Your task to perform on an android device: delete location history Image 0: 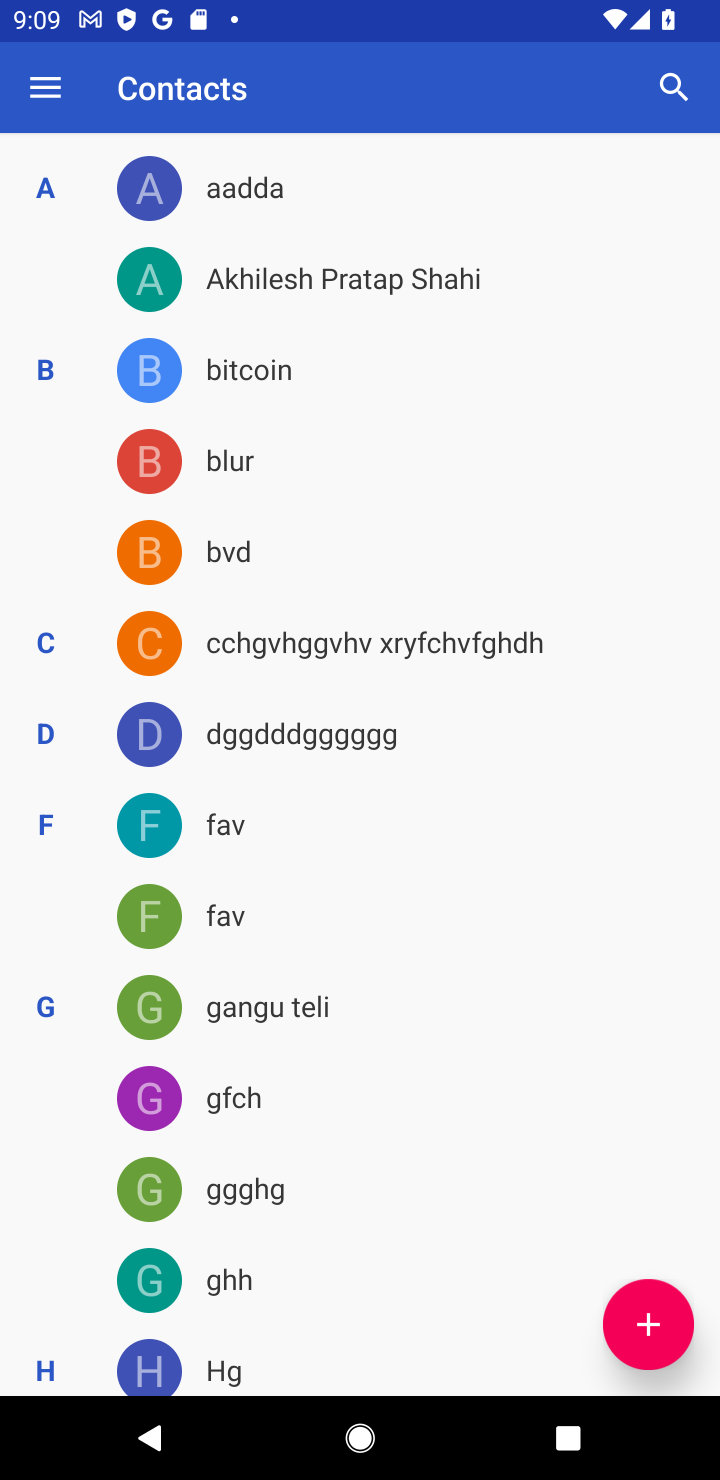
Step 0: press home button
Your task to perform on an android device: delete location history Image 1: 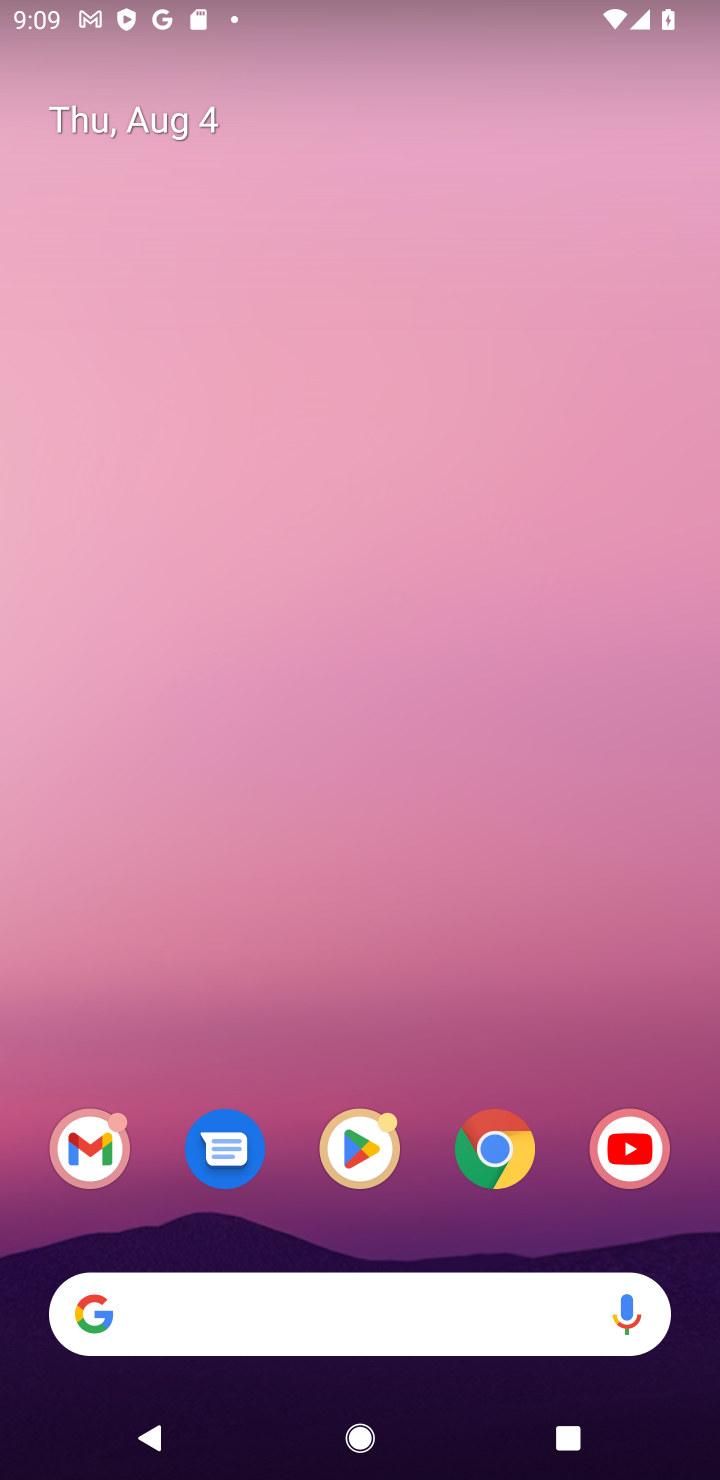
Step 1: drag from (555, 1211) to (478, 214)
Your task to perform on an android device: delete location history Image 2: 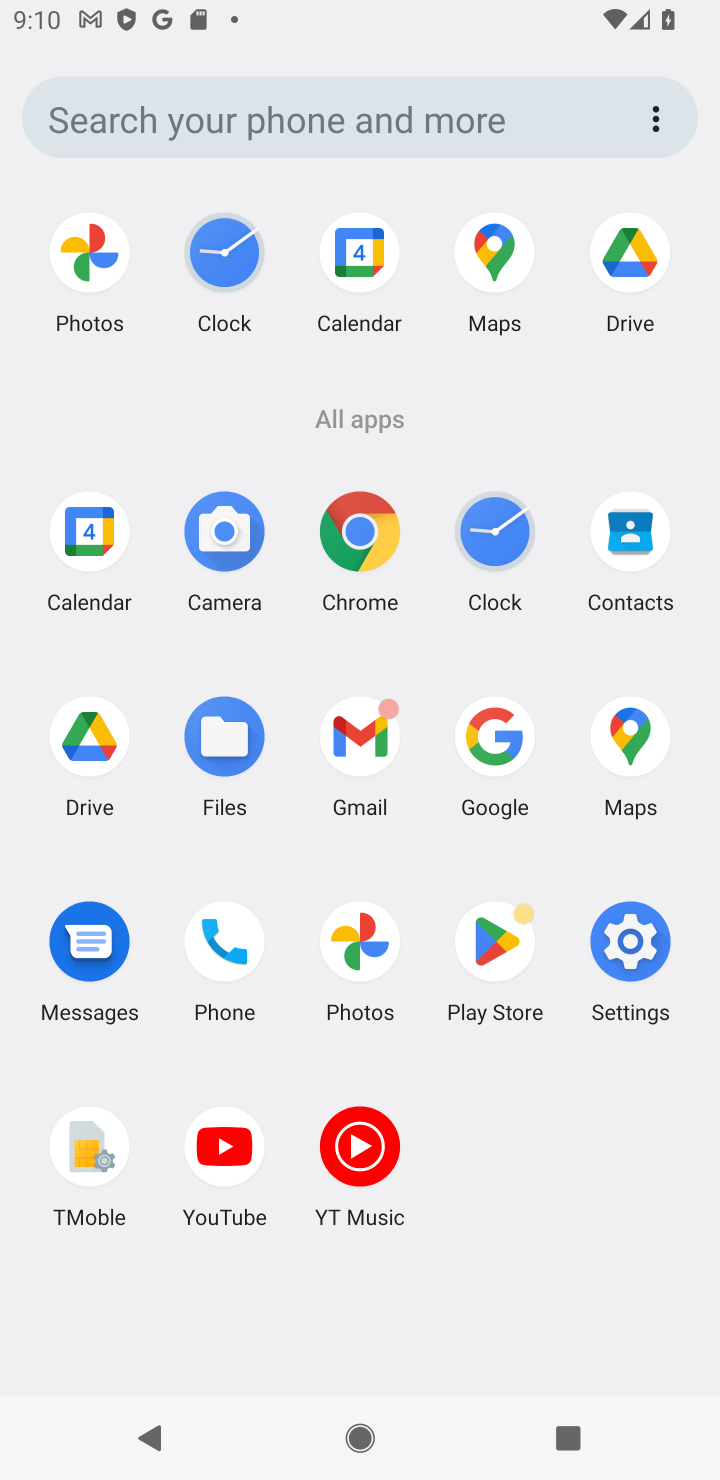
Step 2: click (627, 736)
Your task to perform on an android device: delete location history Image 3: 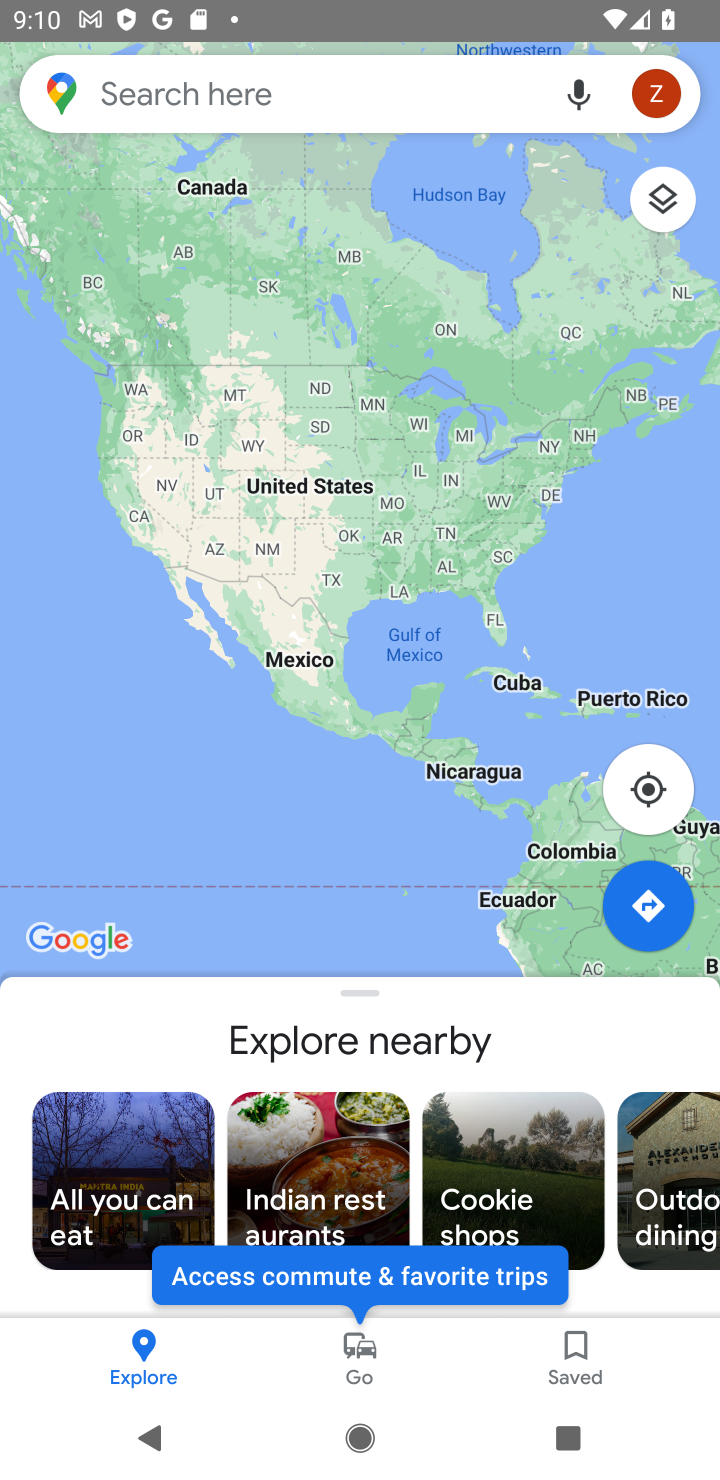
Step 3: click (656, 106)
Your task to perform on an android device: delete location history Image 4: 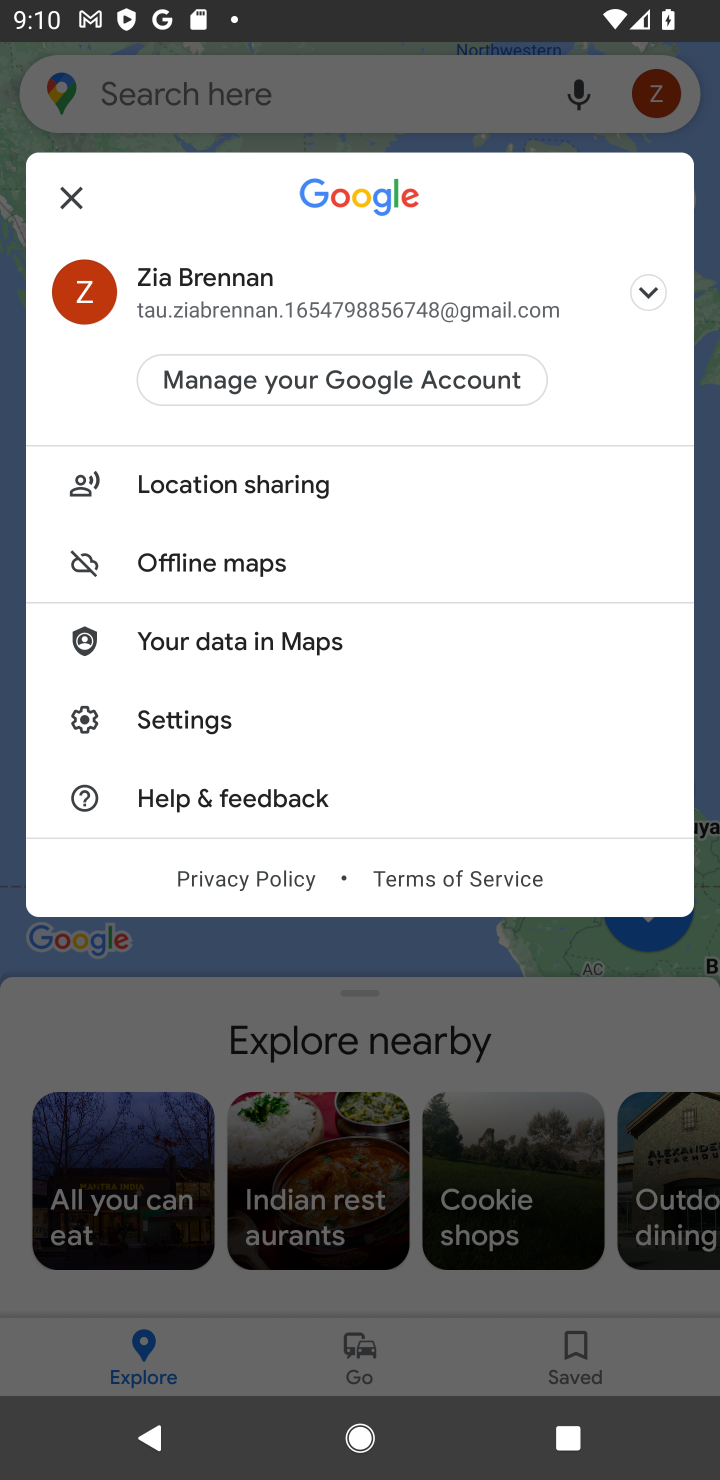
Step 4: click (159, 713)
Your task to perform on an android device: delete location history Image 5: 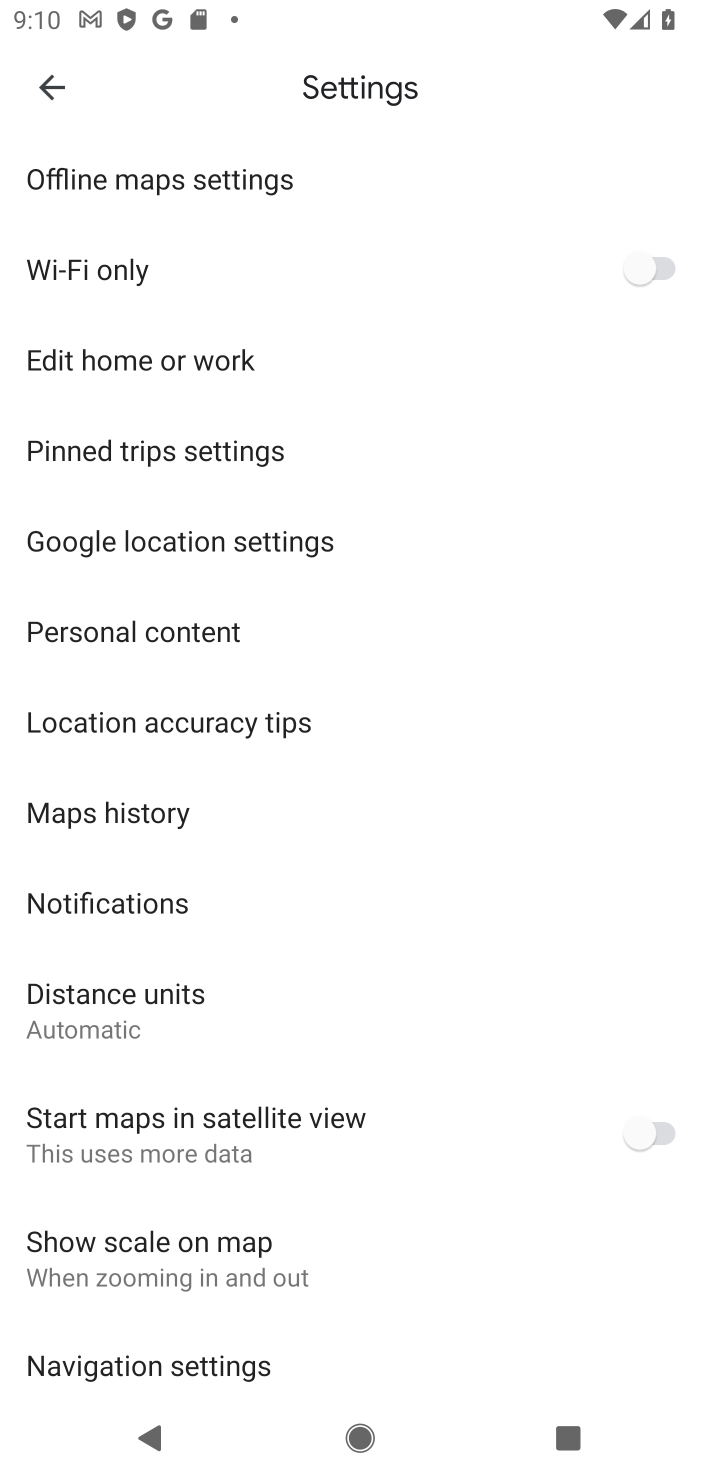
Step 5: click (143, 623)
Your task to perform on an android device: delete location history Image 6: 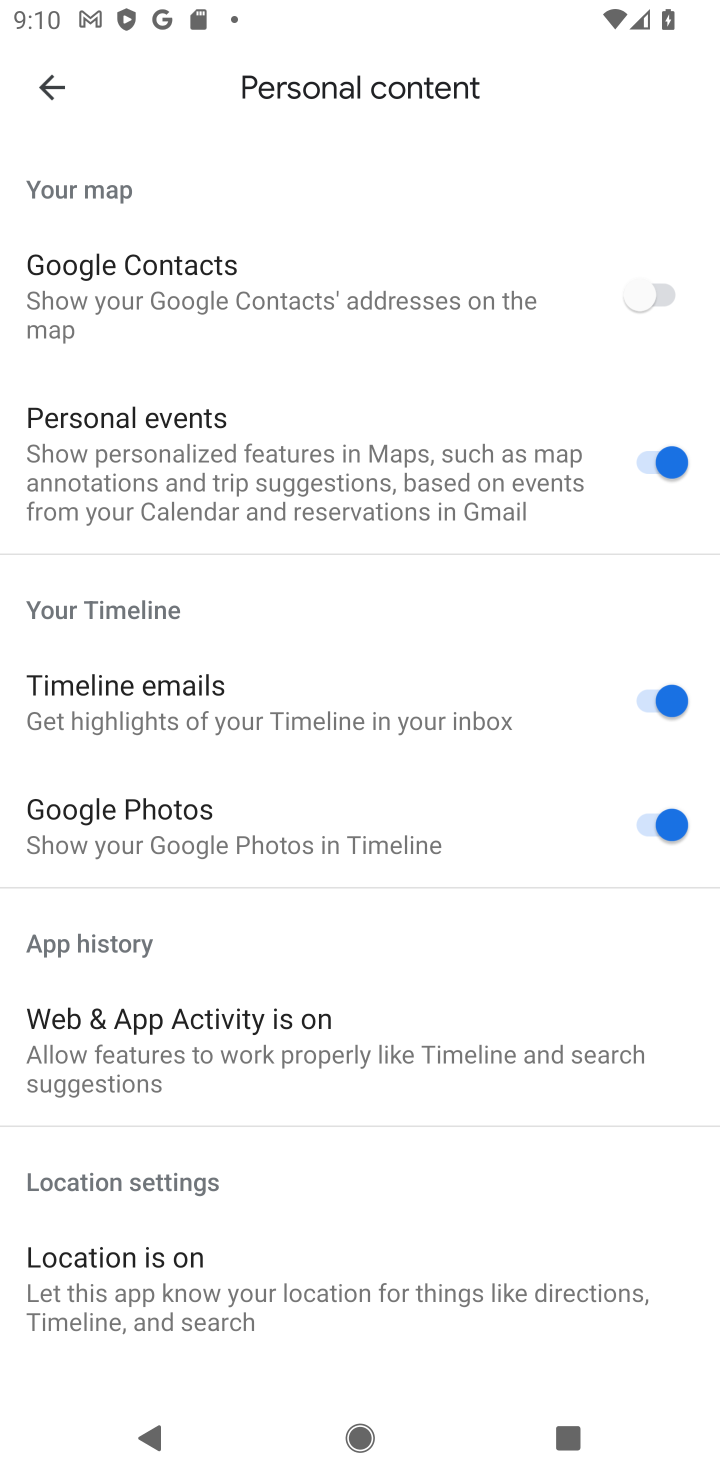
Step 6: drag from (342, 1204) to (398, 214)
Your task to perform on an android device: delete location history Image 7: 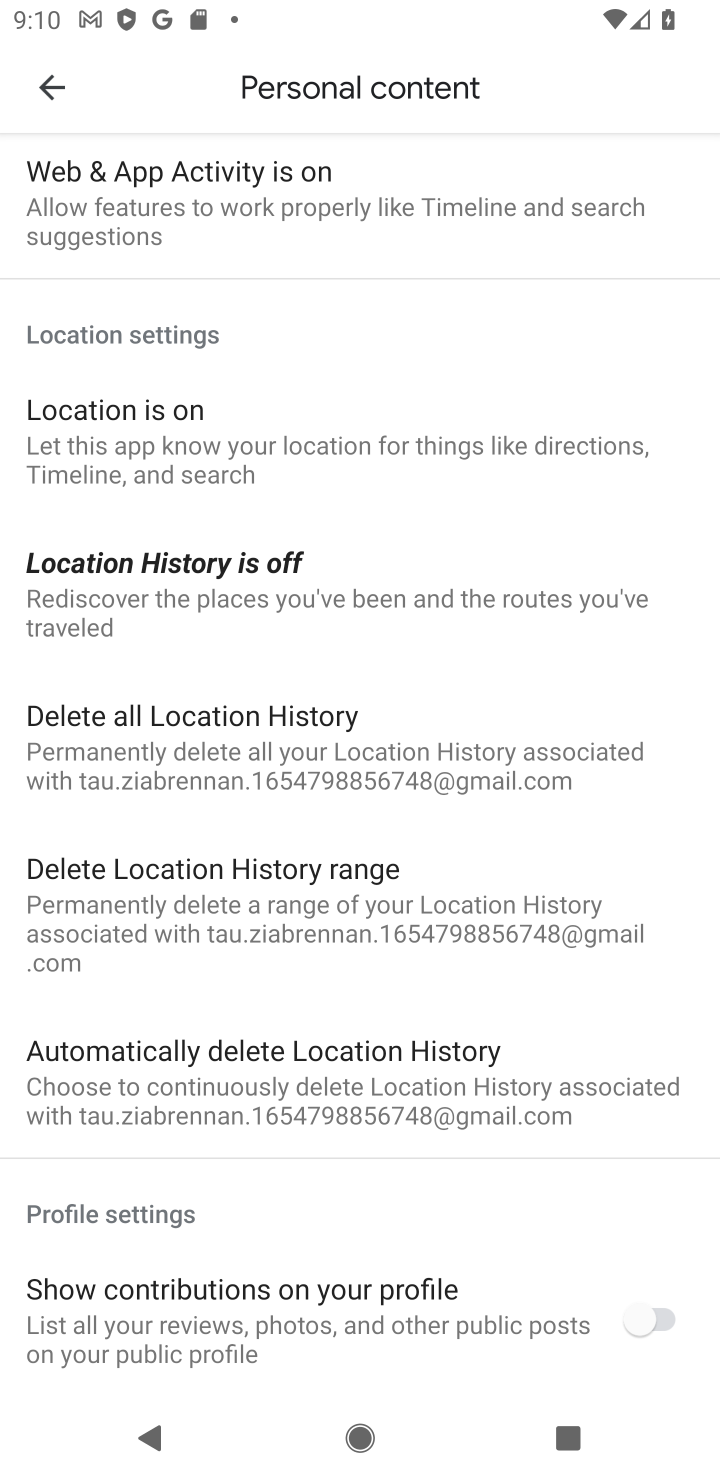
Step 7: click (147, 741)
Your task to perform on an android device: delete location history Image 8: 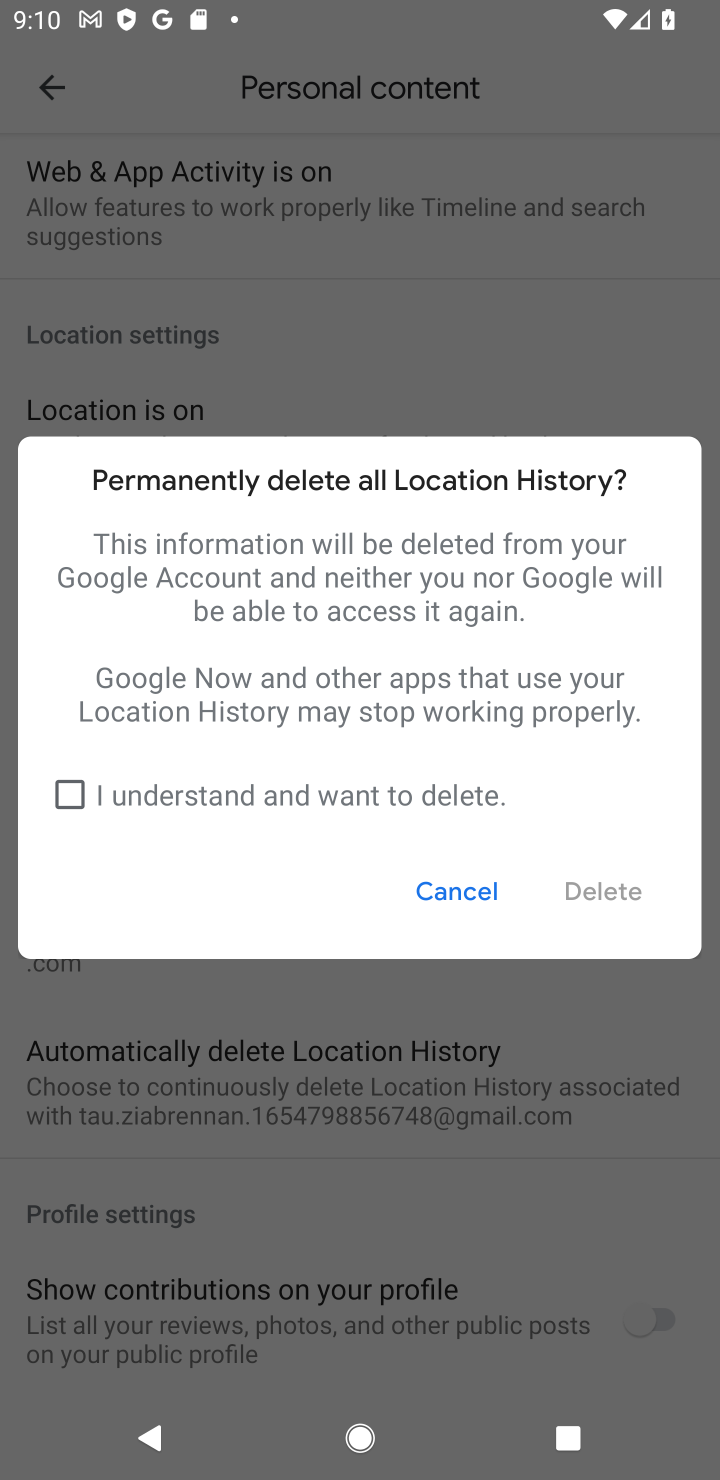
Step 8: click (64, 796)
Your task to perform on an android device: delete location history Image 9: 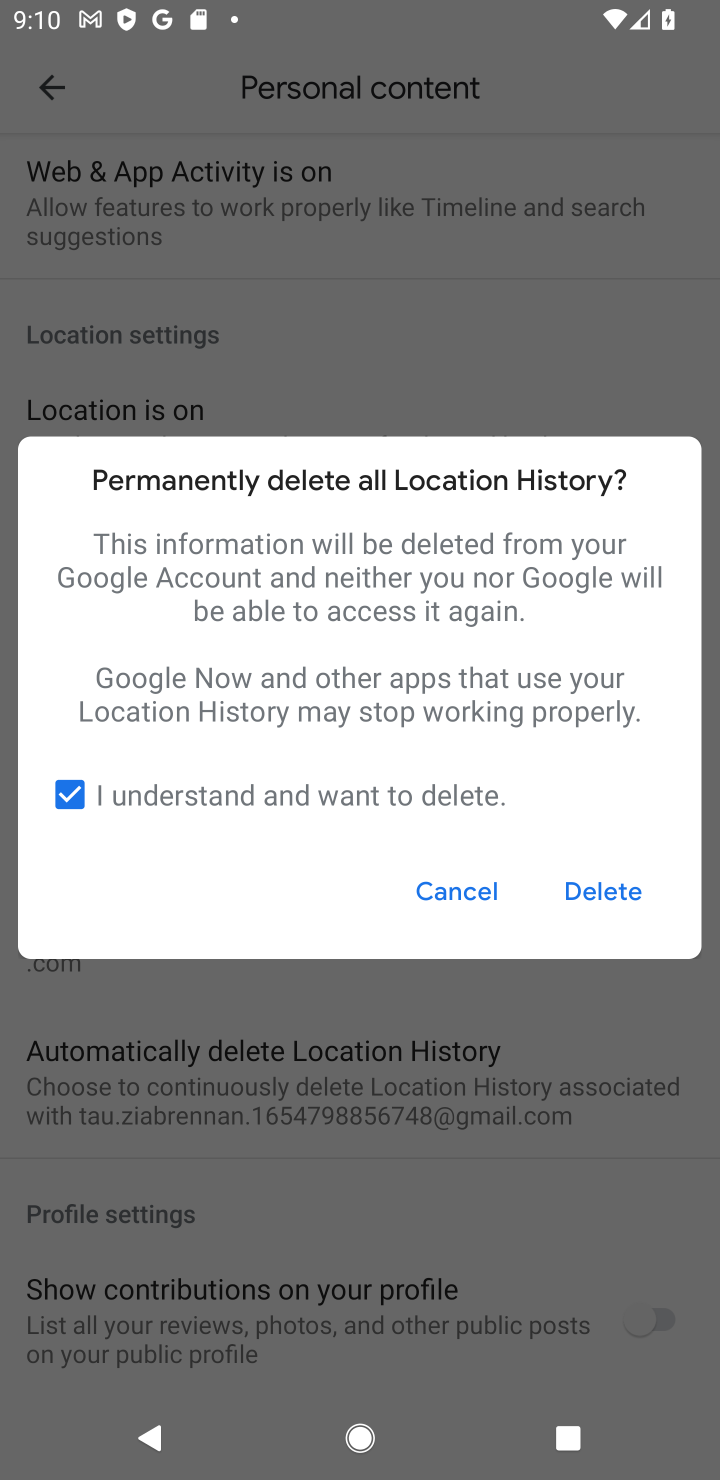
Step 9: click (598, 889)
Your task to perform on an android device: delete location history Image 10: 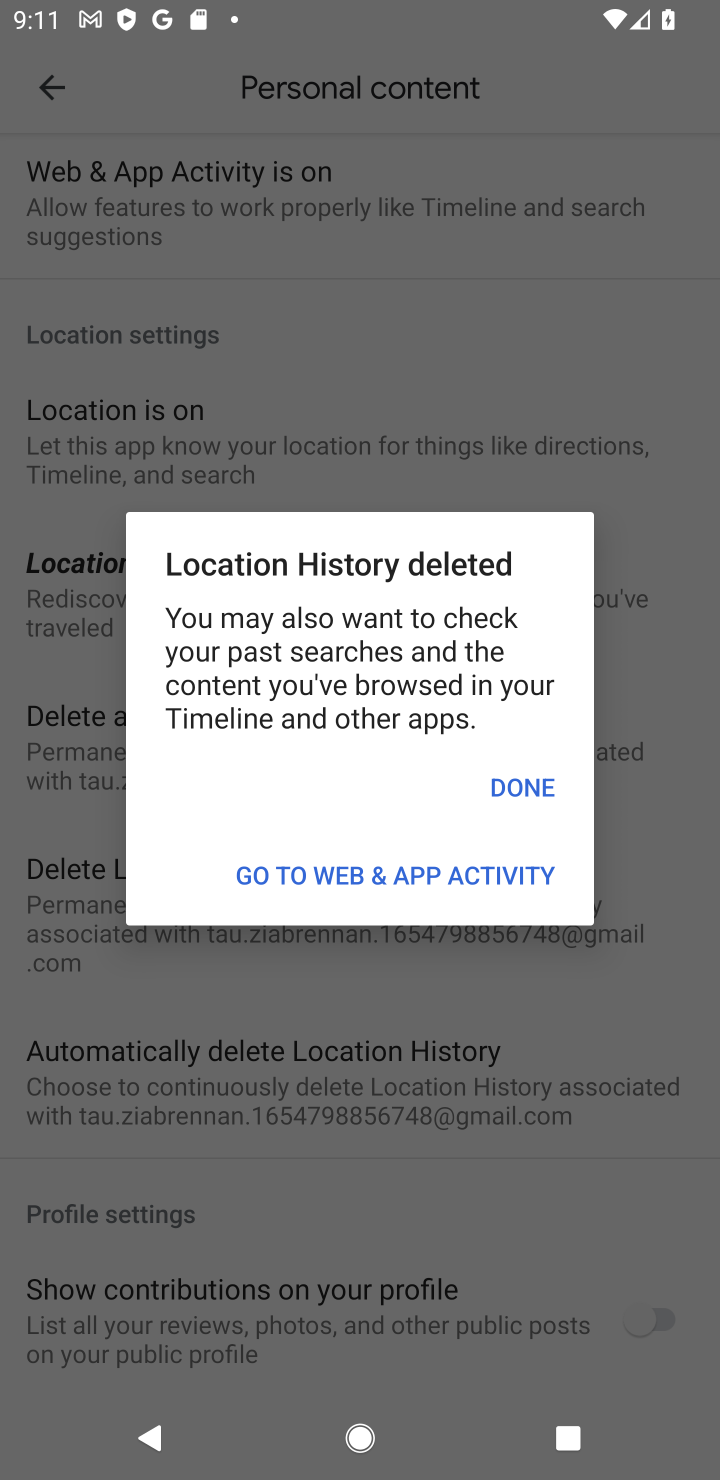
Step 10: click (499, 785)
Your task to perform on an android device: delete location history Image 11: 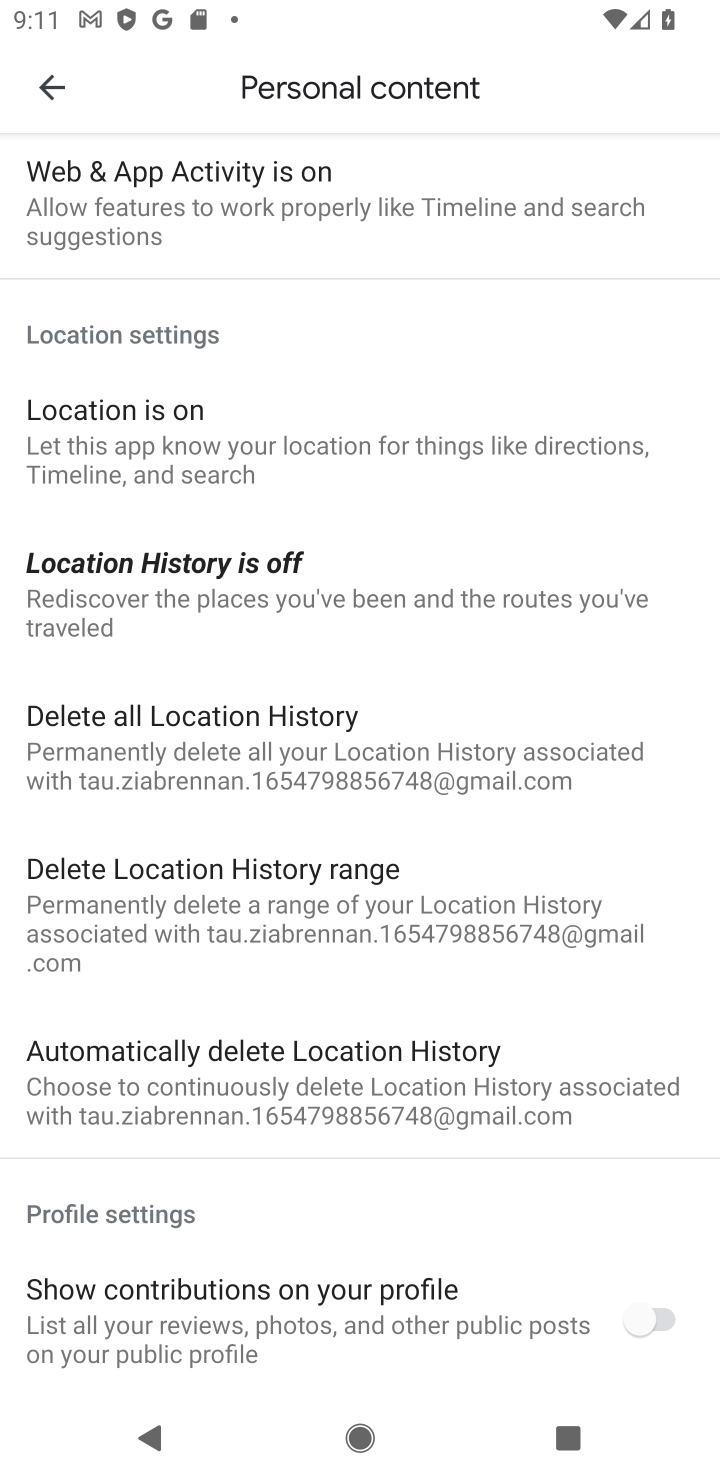
Step 11: task complete